Your task to perform on an android device: see tabs open on other devices in the chrome app Image 0: 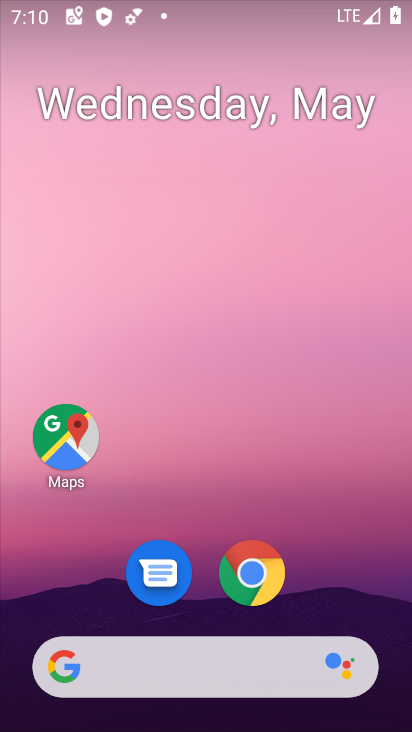
Step 0: click (258, 589)
Your task to perform on an android device: see tabs open on other devices in the chrome app Image 1: 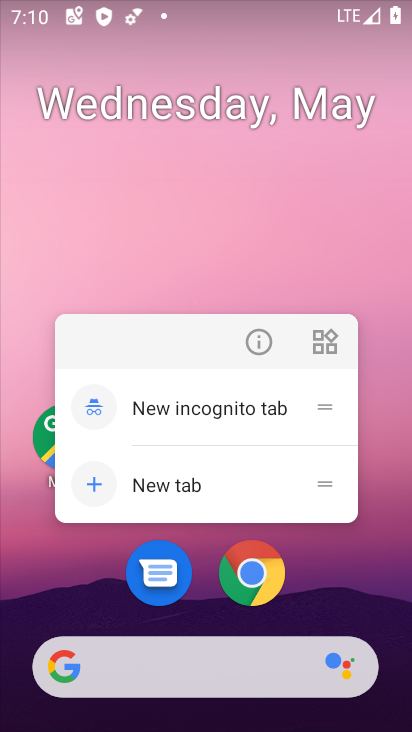
Step 1: click (256, 576)
Your task to perform on an android device: see tabs open on other devices in the chrome app Image 2: 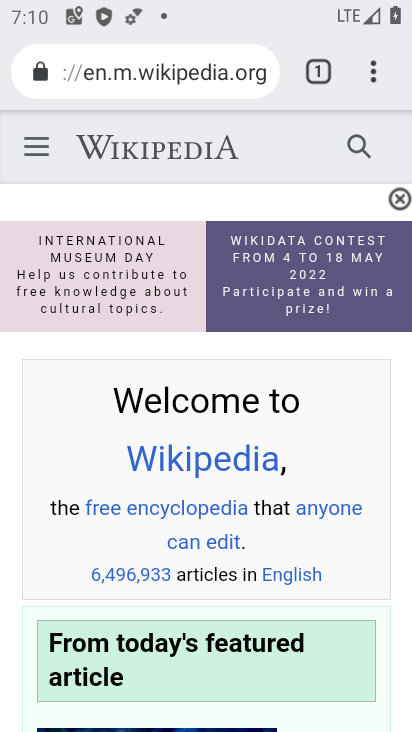
Step 2: click (373, 73)
Your task to perform on an android device: see tabs open on other devices in the chrome app Image 3: 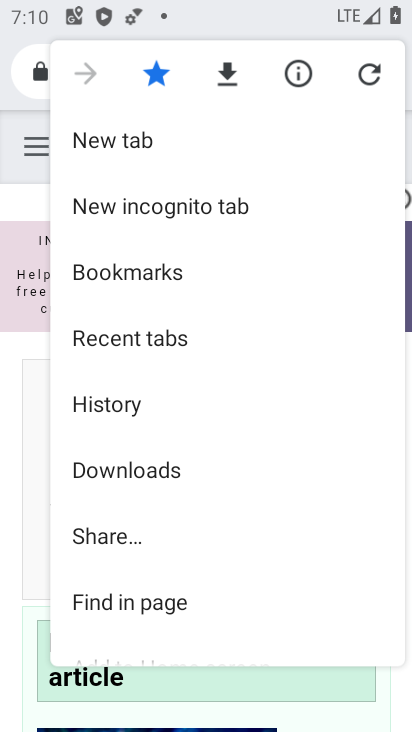
Step 3: click (158, 336)
Your task to perform on an android device: see tabs open on other devices in the chrome app Image 4: 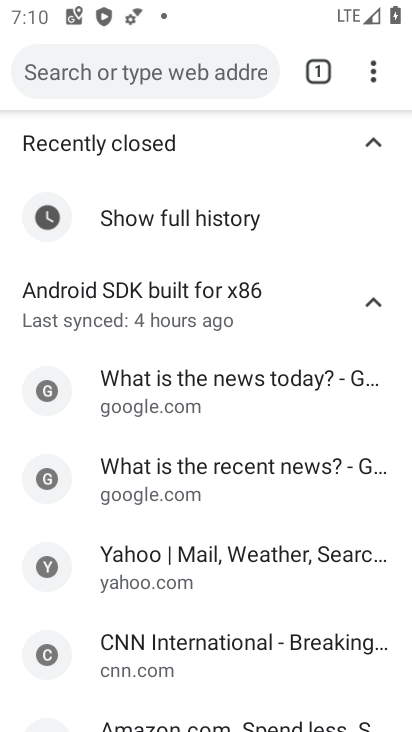
Step 4: task complete